Your task to perform on an android device: Go to calendar. Show me events next week Image 0: 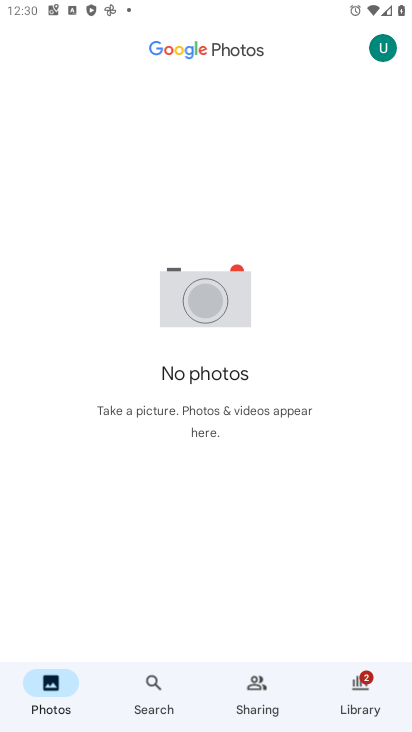
Step 0: press home button
Your task to perform on an android device: Go to calendar. Show me events next week Image 1: 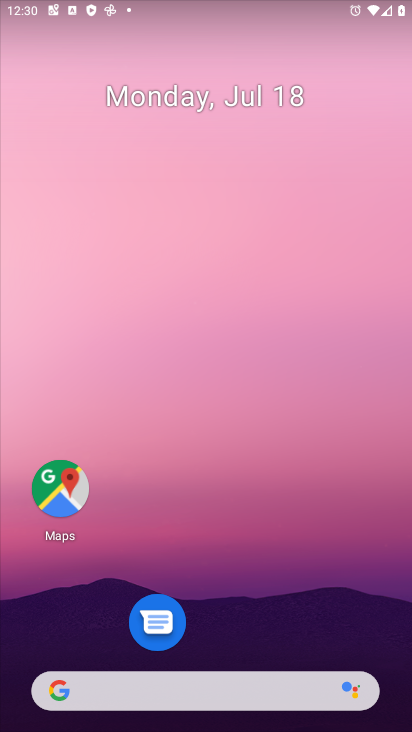
Step 1: drag from (148, 719) to (337, 28)
Your task to perform on an android device: Go to calendar. Show me events next week Image 2: 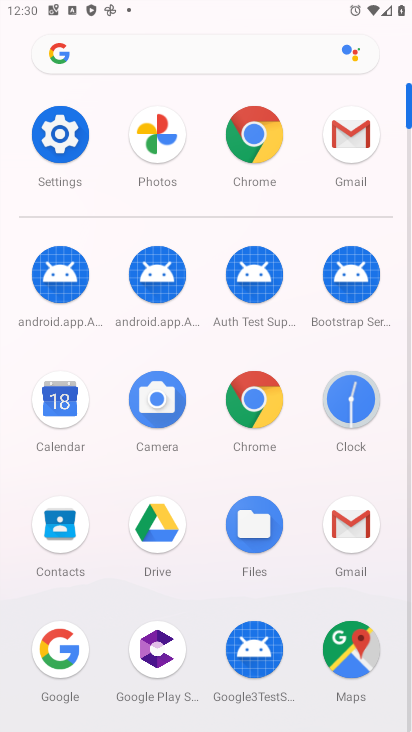
Step 2: click (61, 400)
Your task to perform on an android device: Go to calendar. Show me events next week Image 3: 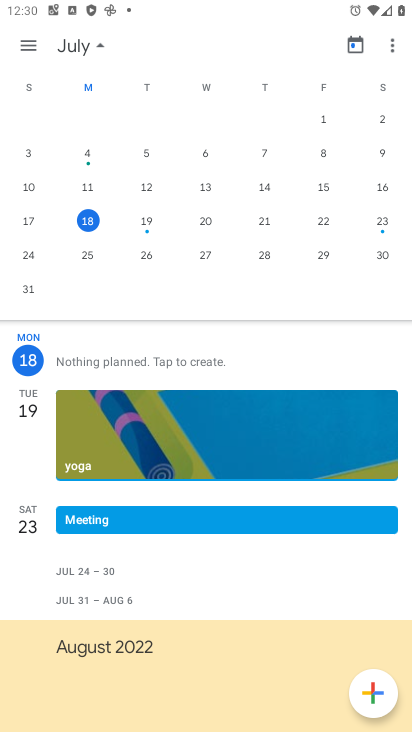
Step 3: click (26, 253)
Your task to perform on an android device: Go to calendar. Show me events next week Image 4: 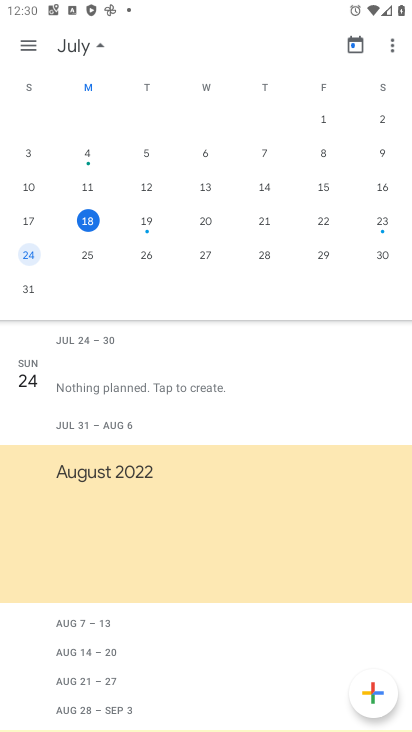
Step 4: click (197, 377)
Your task to perform on an android device: Go to calendar. Show me events next week Image 5: 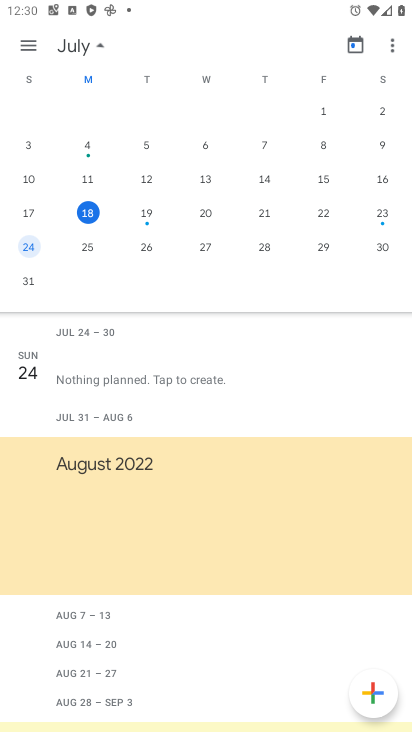
Step 5: task complete